Your task to perform on an android device: set the stopwatch Image 0: 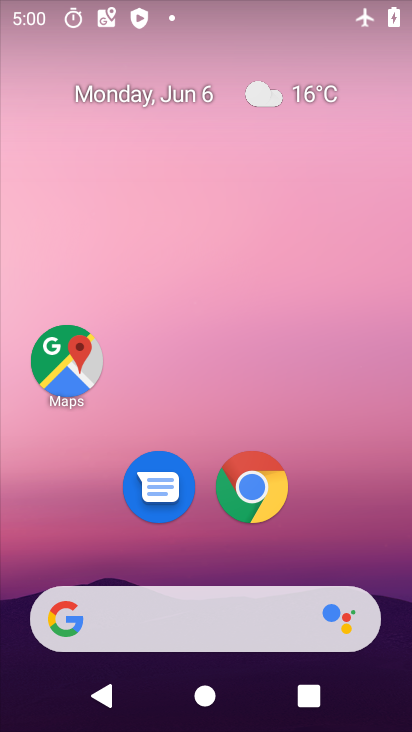
Step 0: drag from (363, 537) to (279, 87)
Your task to perform on an android device: set the stopwatch Image 1: 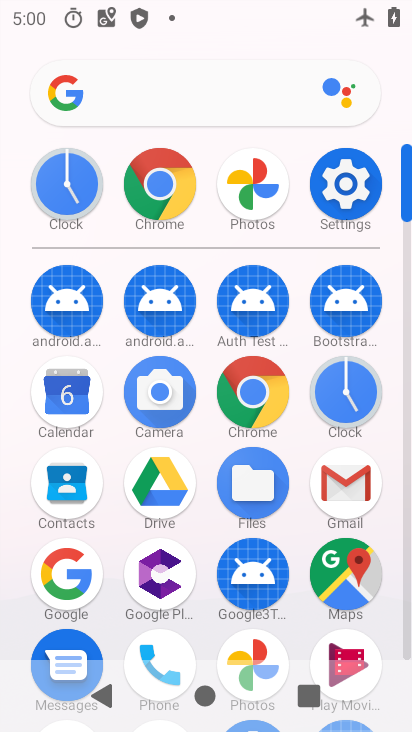
Step 1: click (355, 386)
Your task to perform on an android device: set the stopwatch Image 2: 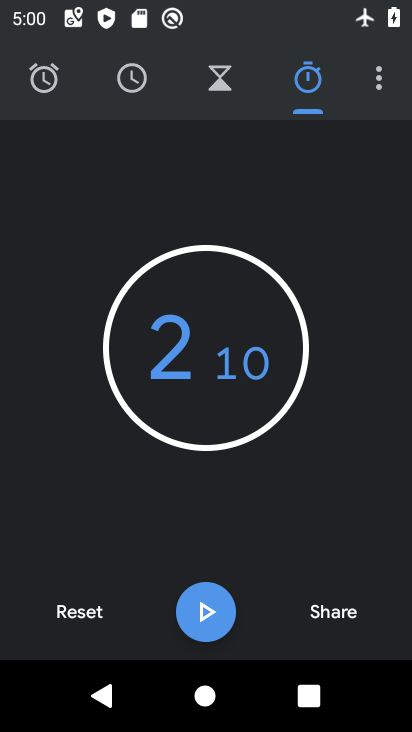
Step 2: task complete